Your task to perform on an android device: Search for a new blush on Sephora Image 0: 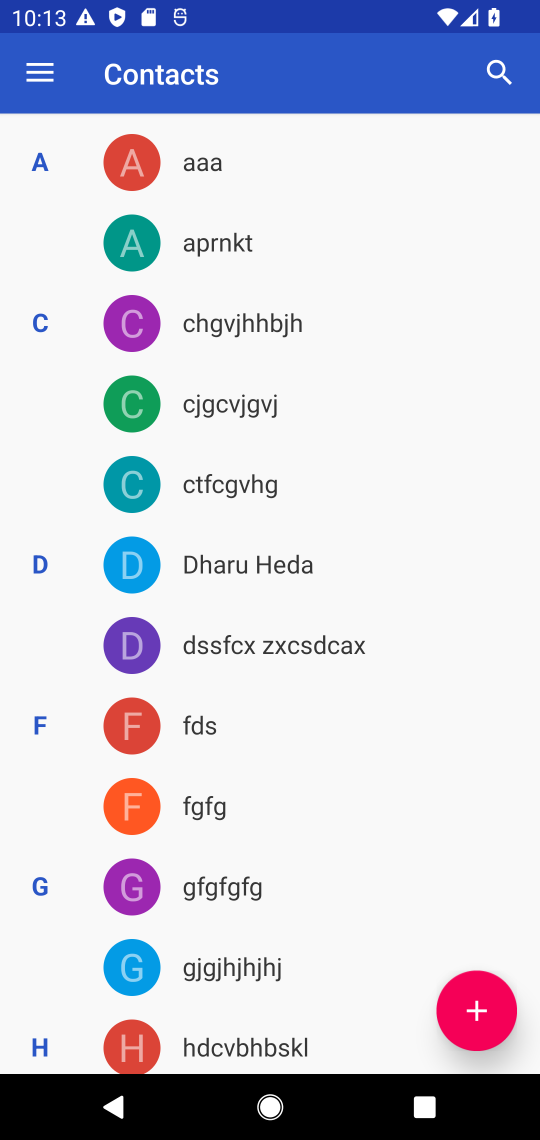
Step 0: press home button
Your task to perform on an android device: Search for a new blush on Sephora Image 1: 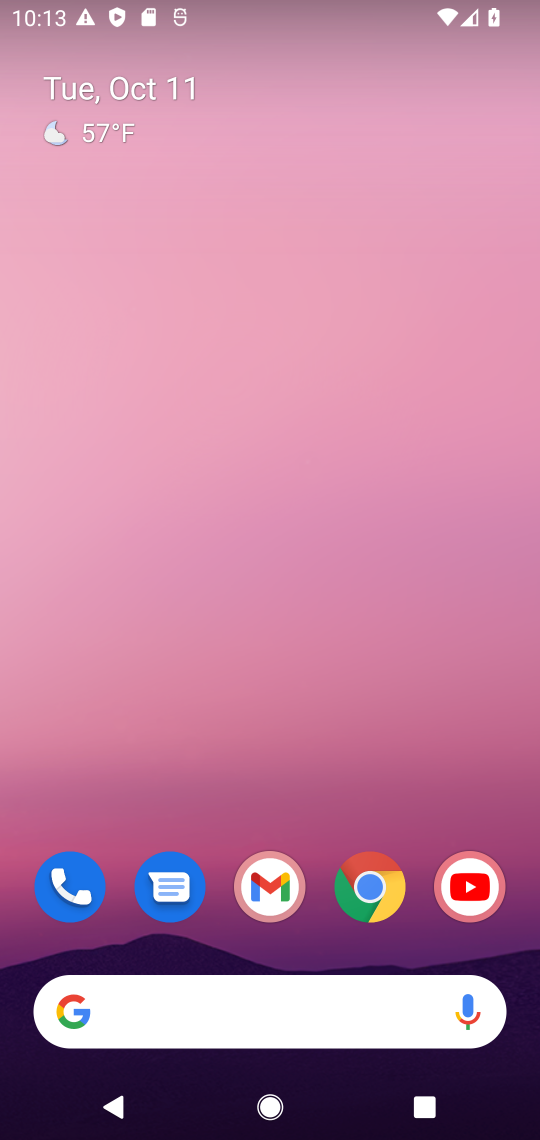
Step 1: click (220, 998)
Your task to perform on an android device: Search for a new blush on Sephora Image 2: 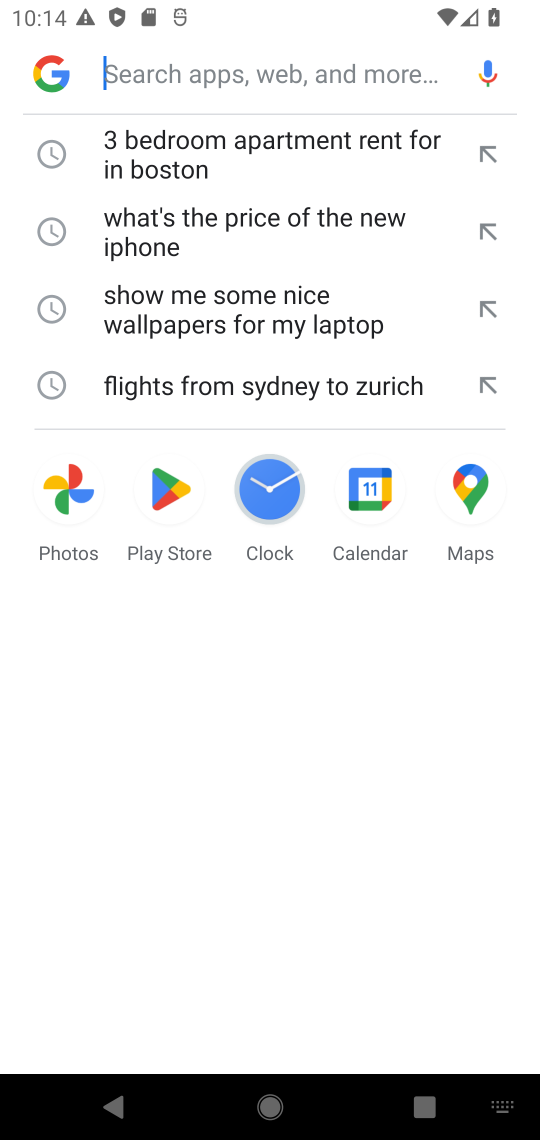
Step 2: press enter
Your task to perform on an android device: Search for a new blush on Sephora Image 3: 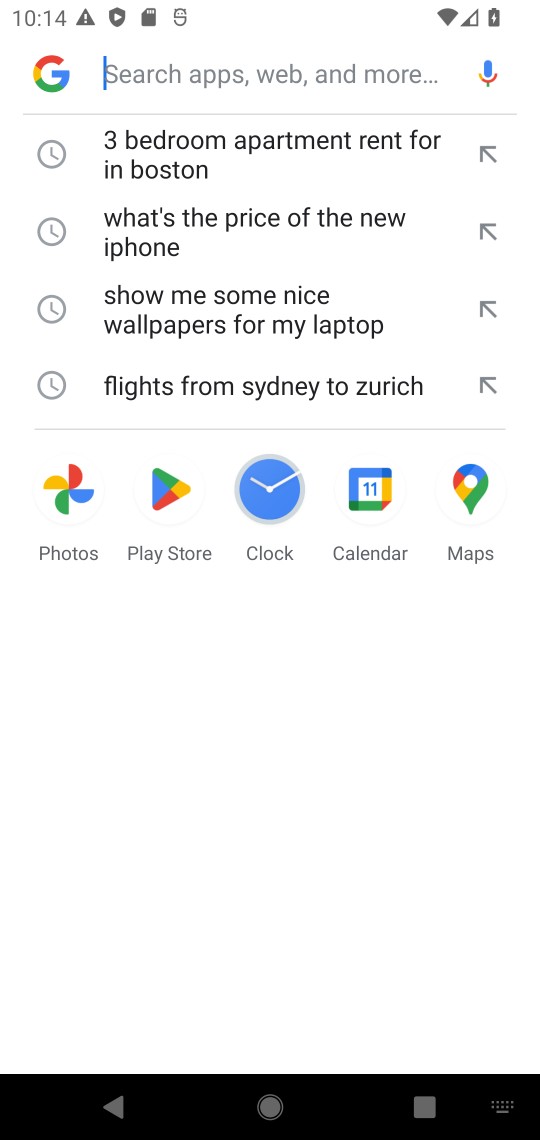
Step 3: type "new blush on Sephora"
Your task to perform on an android device: Search for a new blush on Sephora Image 4: 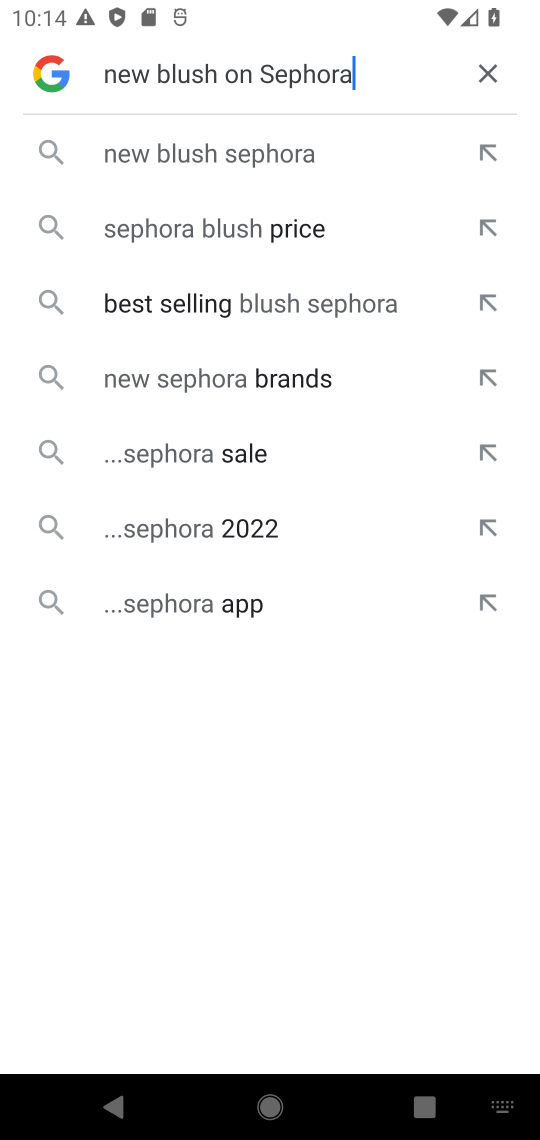
Step 4: press enter
Your task to perform on an android device: Search for a new blush on Sephora Image 5: 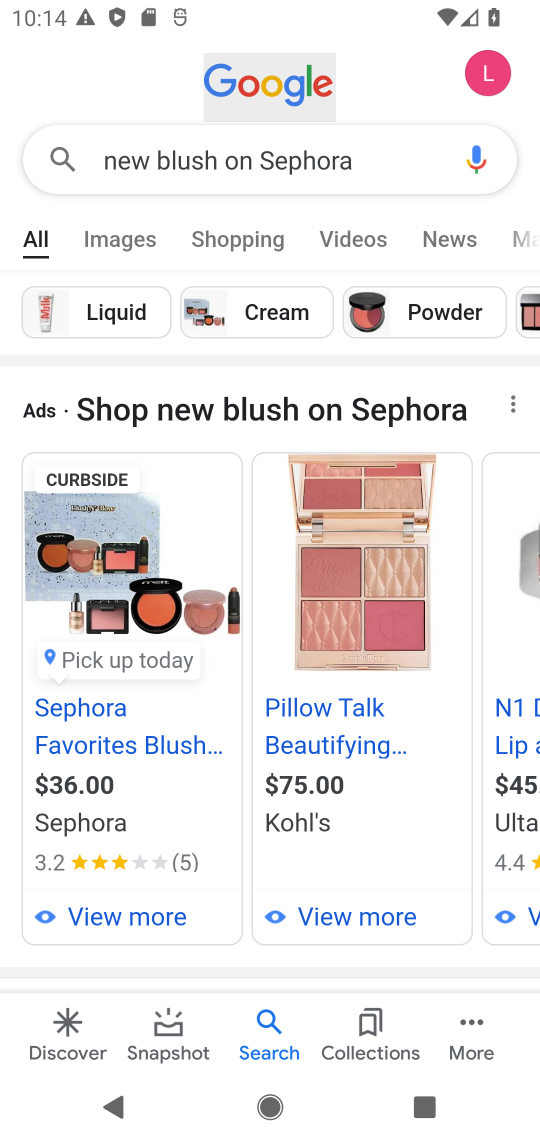
Step 5: task complete